Your task to perform on an android device: toggle javascript in the chrome app Image 0: 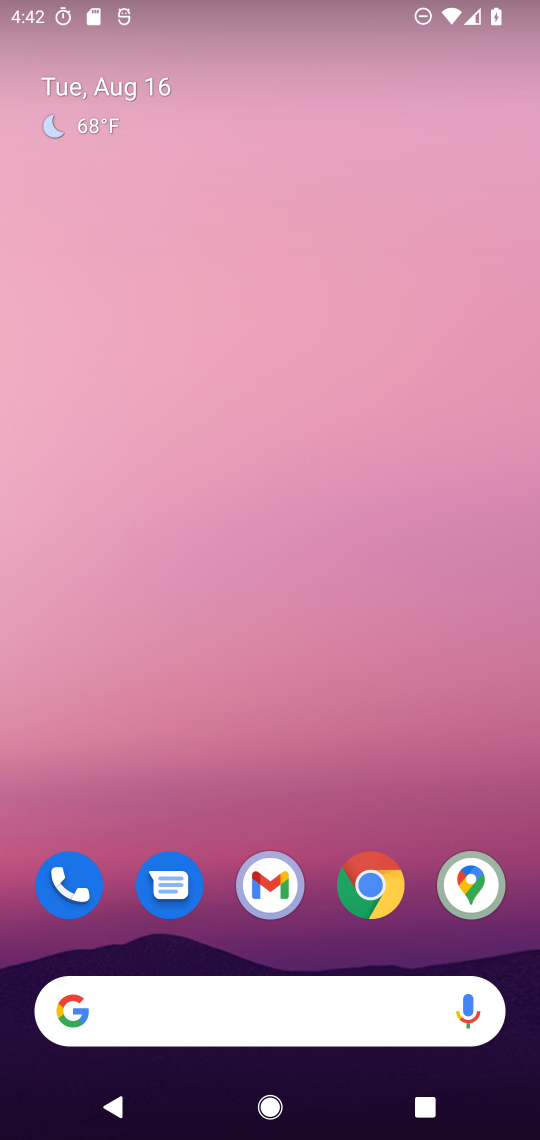
Step 0: drag from (356, 920) to (284, 159)
Your task to perform on an android device: toggle javascript in the chrome app Image 1: 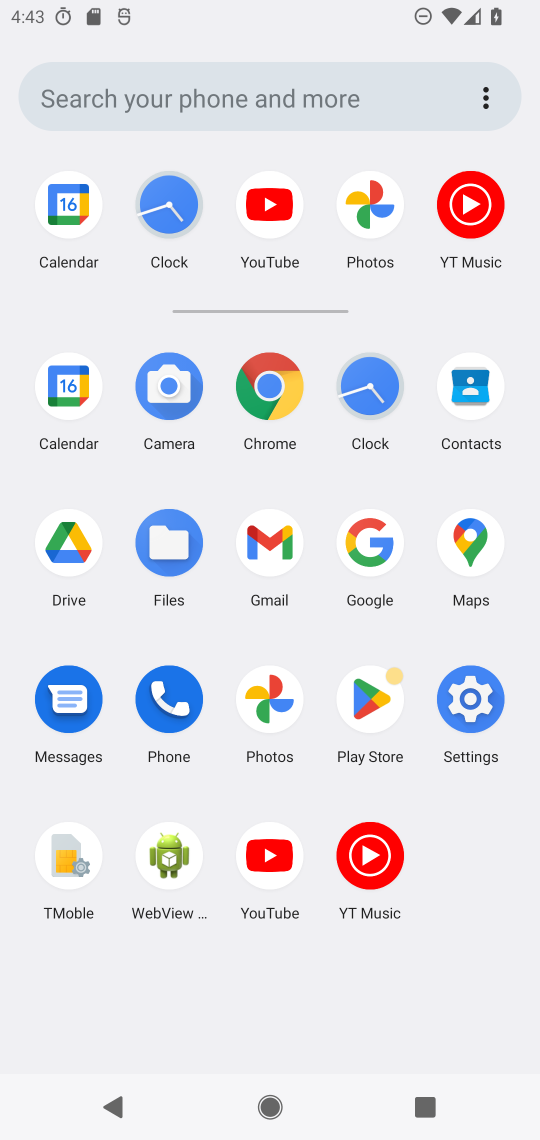
Step 1: click (277, 377)
Your task to perform on an android device: toggle javascript in the chrome app Image 2: 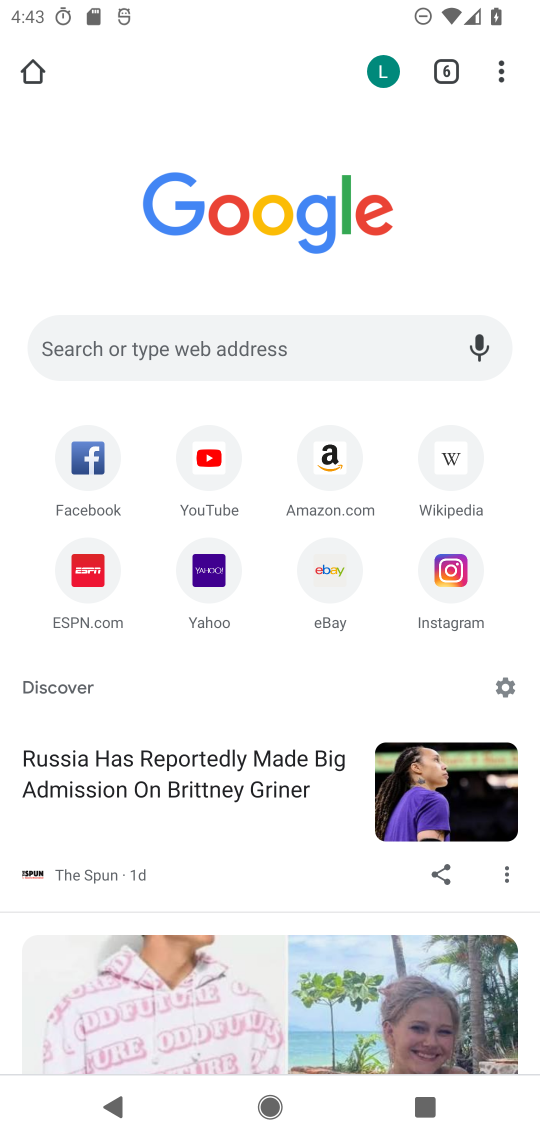
Step 2: click (499, 75)
Your task to perform on an android device: toggle javascript in the chrome app Image 3: 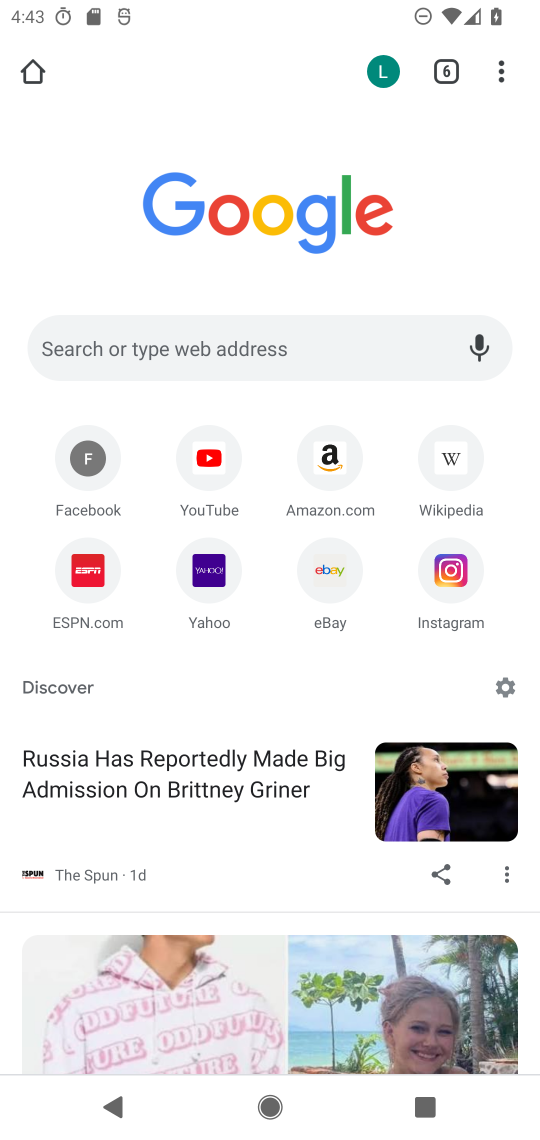
Step 3: click (481, 66)
Your task to perform on an android device: toggle javascript in the chrome app Image 4: 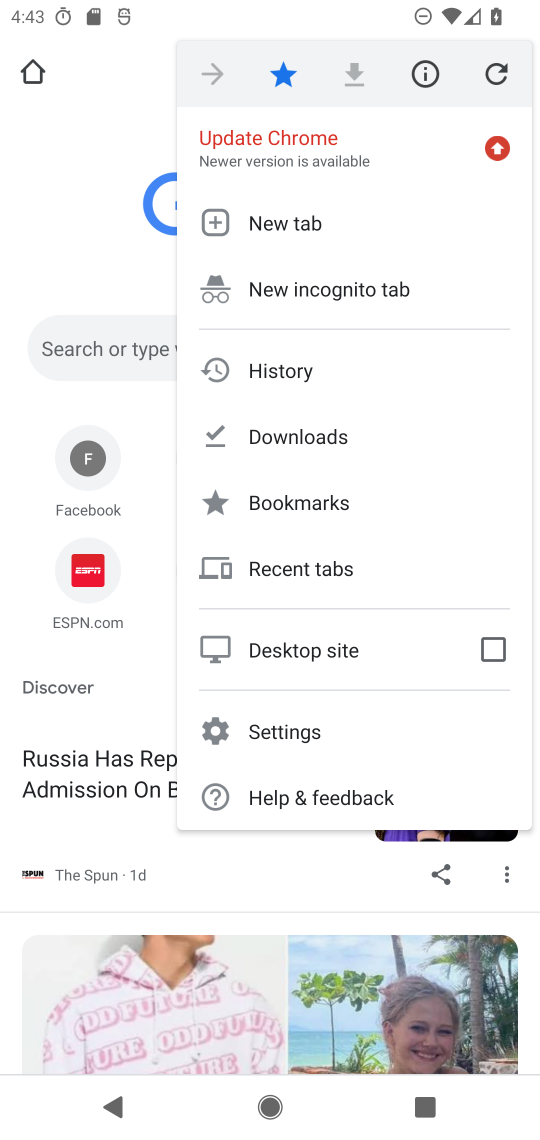
Step 4: click (247, 741)
Your task to perform on an android device: toggle javascript in the chrome app Image 5: 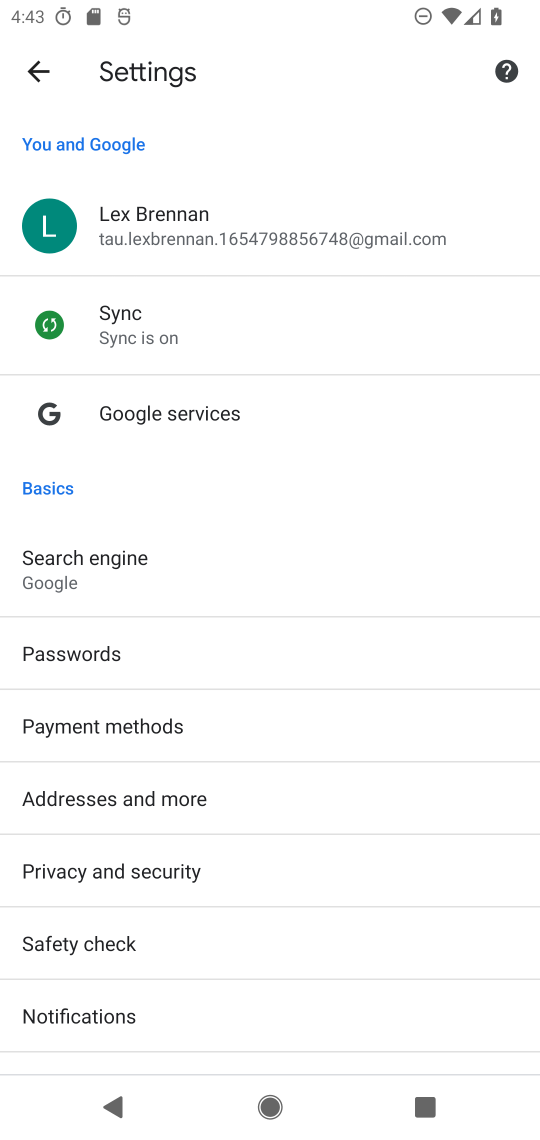
Step 5: drag from (108, 1009) to (296, 231)
Your task to perform on an android device: toggle javascript in the chrome app Image 6: 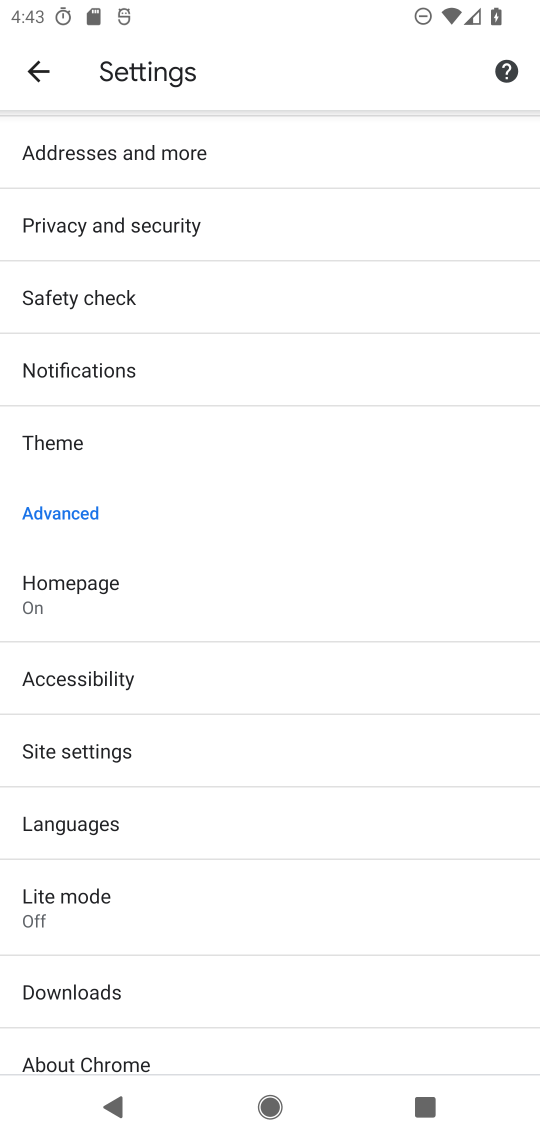
Step 6: click (152, 734)
Your task to perform on an android device: toggle javascript in the chrome app Image 7: 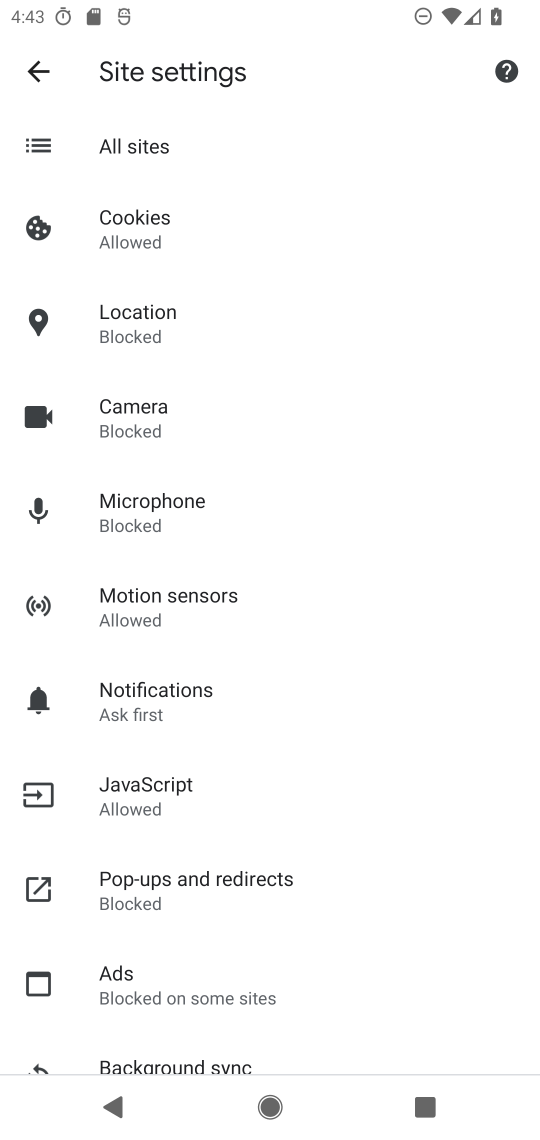
Step 7: click (144, 802)
Your task to perform on an android device: toggle javascript in the chrome app Image 8: 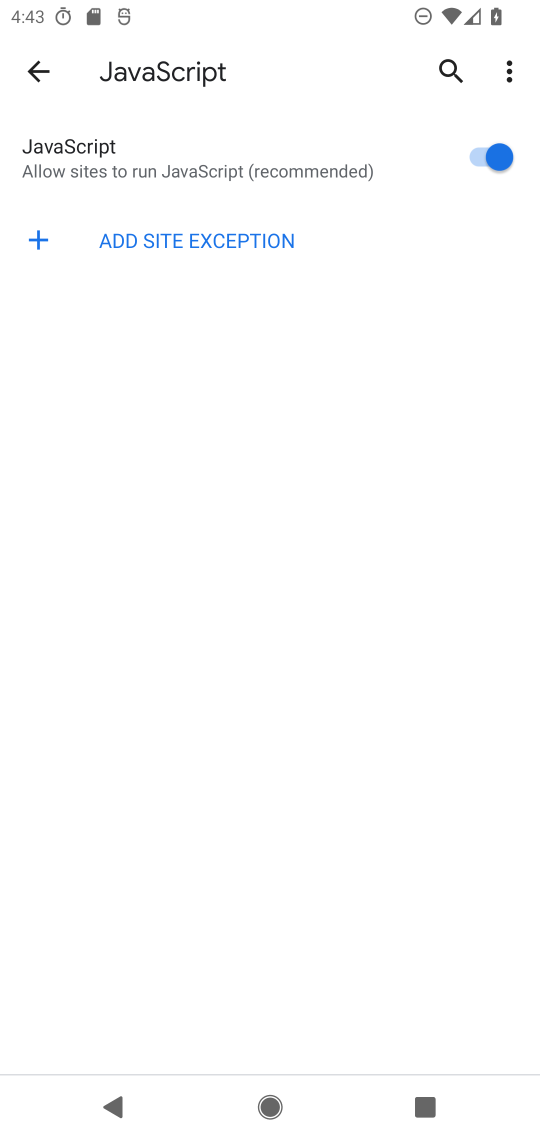
Step 8: click (491, 141)
Your task to perform on an android device: toggle javascript in the chrome app Image 9: 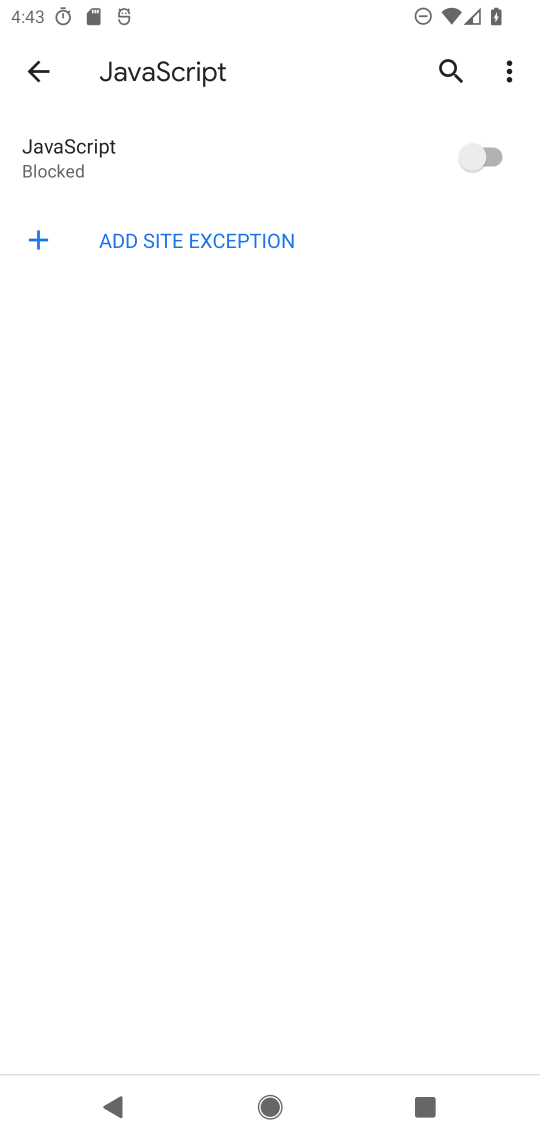
Step 9: task complete